Your task to perform on an android device: show emergency info Image 0: 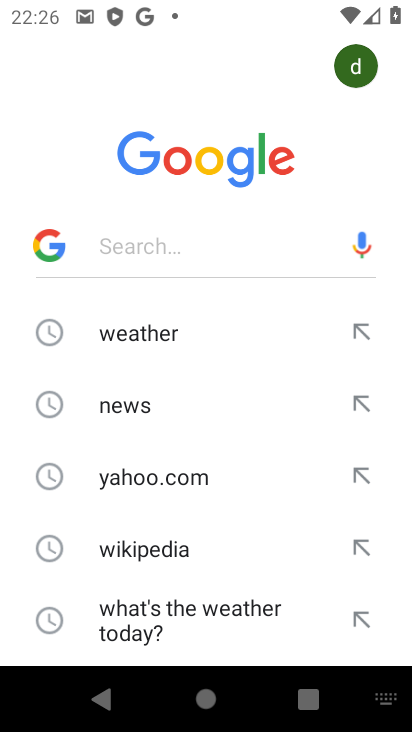
Step 0: press home button
Your task to perform on an android device: show emergency info Image 1: 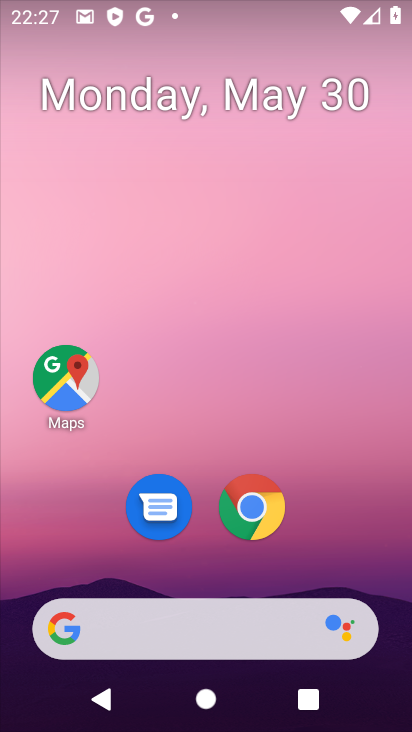
Step 1: drag from (368, 526) to (366, 109)
Your task to perform on an android device: show emergency info Image 2: 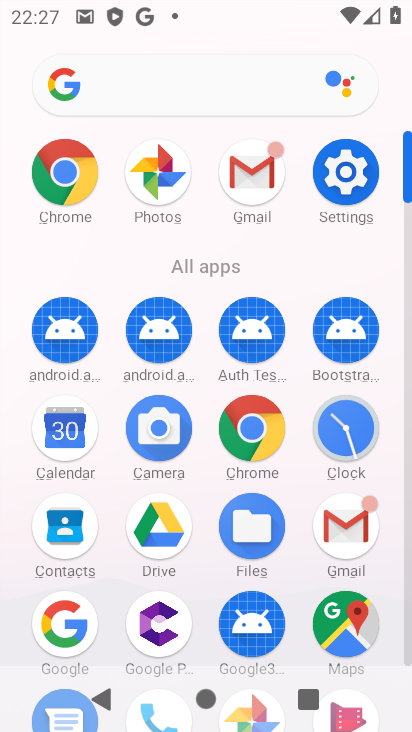
Step 2: click (349, 193)
Your task to perform on an android device: show emergency info Image 3: 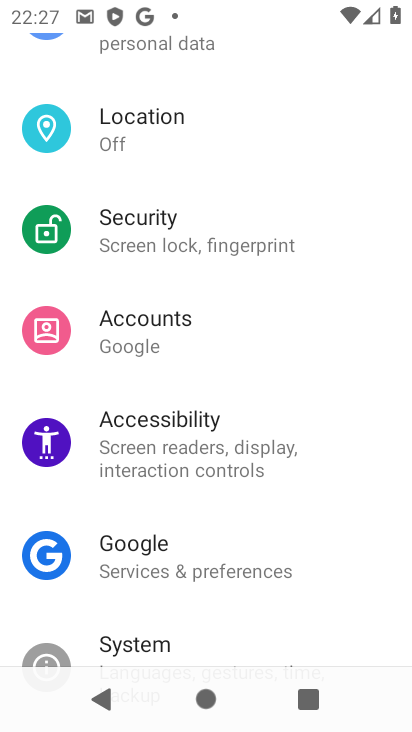
Step 3: drag from (319, 444) to (344, 248)
Your task to perform on an android device: show emergency info Image 4: 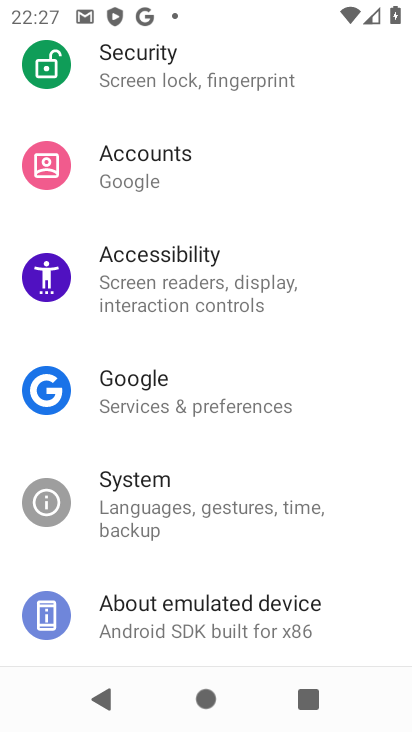
Step 4: drag from (341, 409) to (359, 318)
Your task to perform on an android device: show emergency info Image 5: 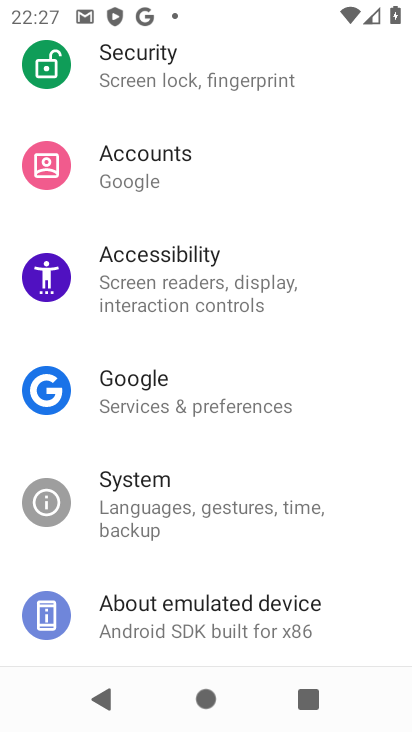
Step 5: click (303, 606)
Your task to perform on an android device: show emergency info Image 6: 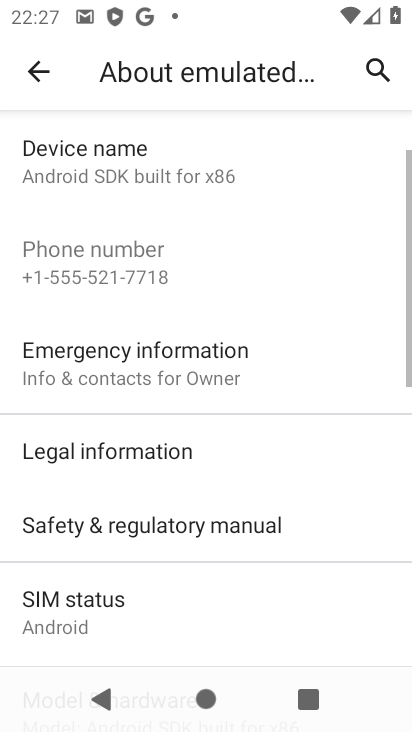
Step 6: drag from (344, 432) to (371, 298)
Your task to perform on an android device: show emergency info Image 7: 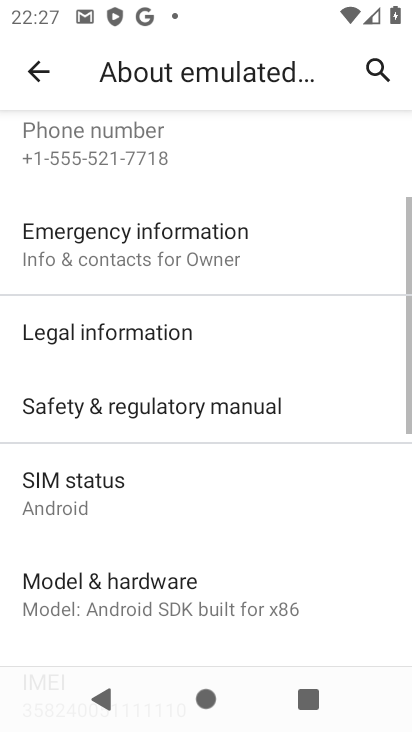
Step 7: drag from (368, 554) to (367, 403)
Your task to perform on an android device: show emergency info Image 8: 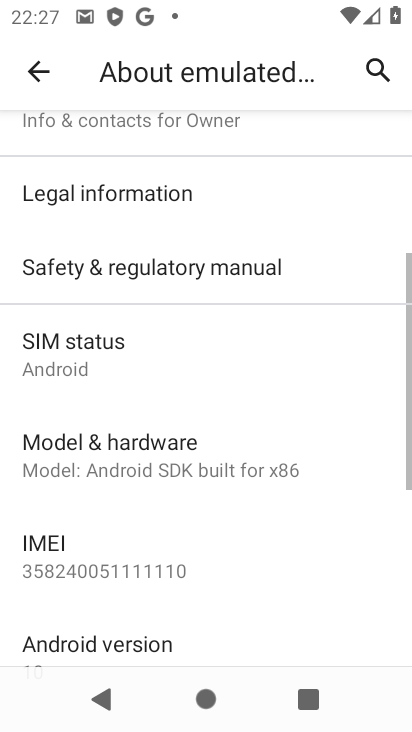
Step 8: drag from (352, 518) to (355, 363)
Your task to perform on an android device: show emergency info Image 9: 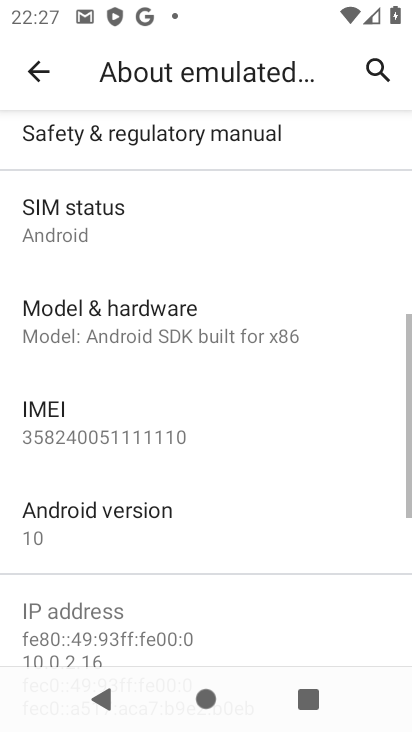
Step 9: drag from (341, 499) to (364, 306)
Your task to perform on an android device: show emergency info Image 10: 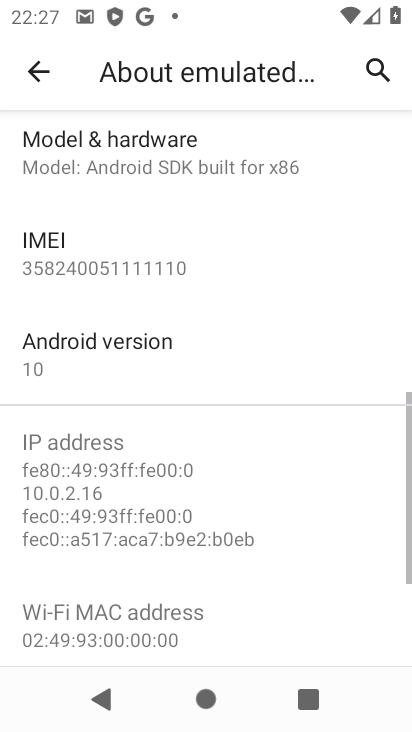
Step 10: drag from (362, 191) to (366, 410)
Your task to perform on an android device: show emergency info Image 11: 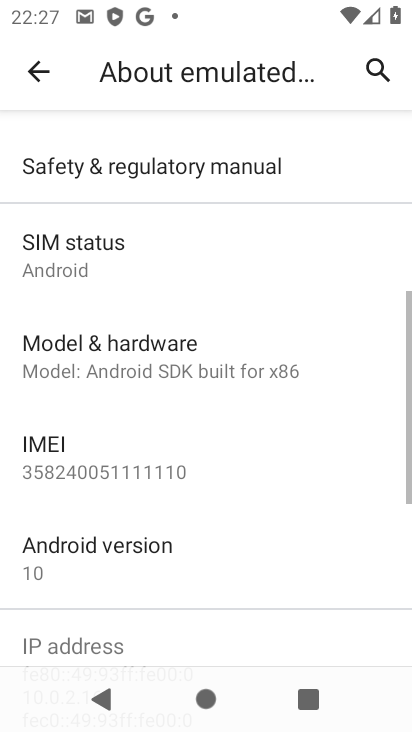
Step 11: drag from (347, 163) to (349, 384)
Your task to perform on an android device: show emergency info Image 12: 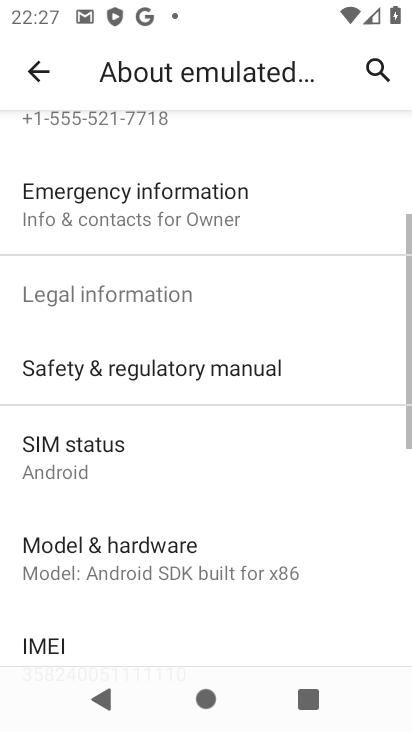
Step 12: drag from (321, 146) to (336, 377)
Your task to perform on an android device: show emergency info Image 13: 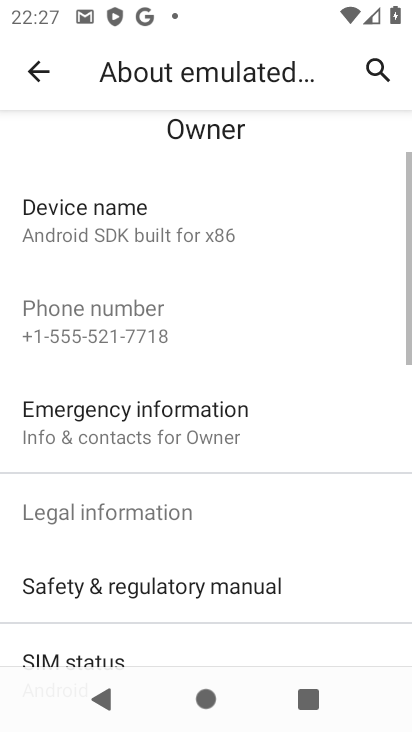
Step 13: click (241, 439)
Your task to perform on an android device: show emergency info Image 14: 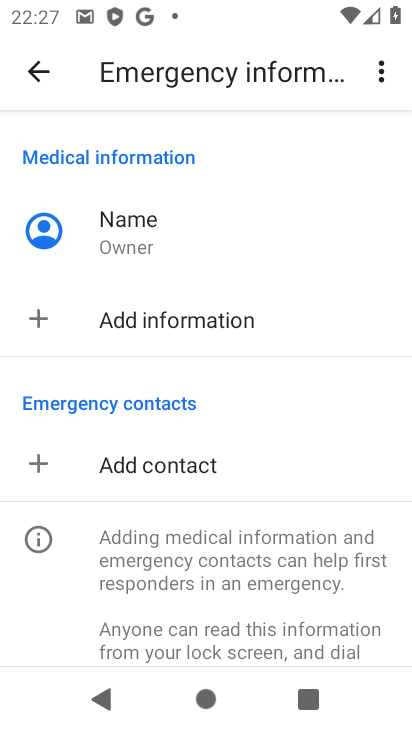
Step 14: task complete